Your task to perform on an android device: check data usage Image 0: 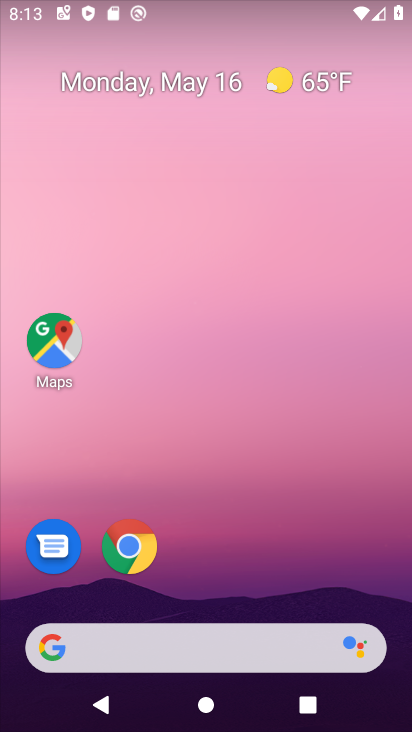
Step 0: drag from (247, 536) to (290, 97)
Your task to perform on an android device: check data usage Image 1: 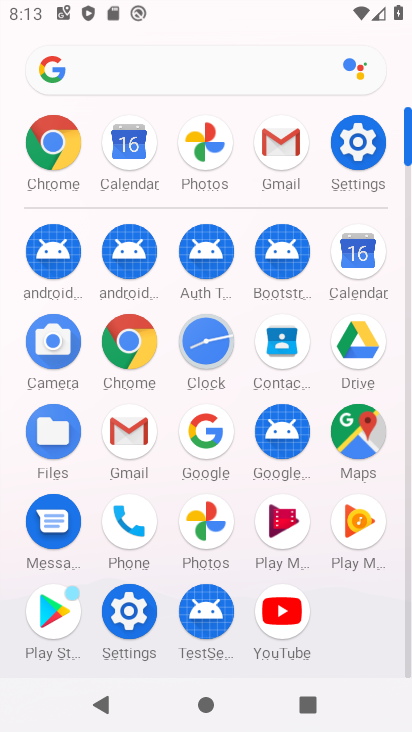
Step 1: click (366, 133)
Your task to perform on an android device: check data usage Image 2: 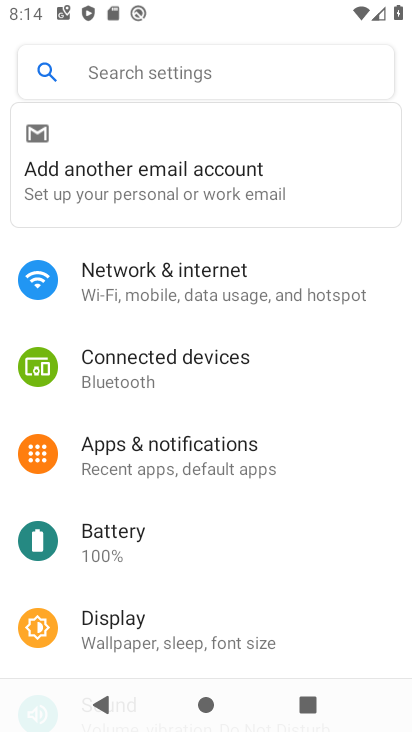
Step 2: click (118, 285)
Your task to perform on an android device: check data usage Image 3: 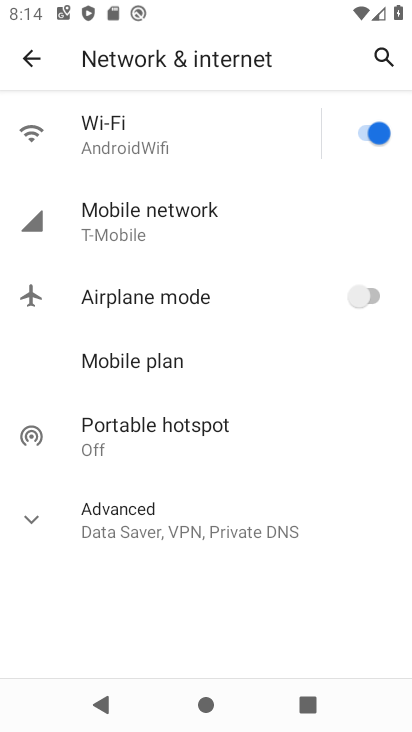
Step 3: click (186, 219)
Your task to perform on an android device: check data usage Image 4: 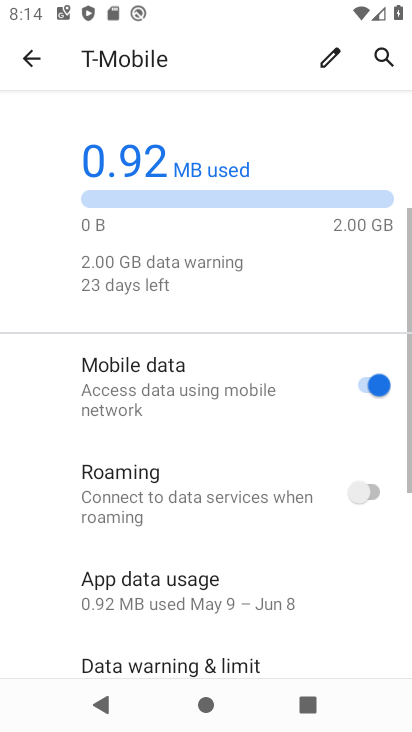
Step 4: task complete